Your task to perform on an android device: turn on improve location accuracy Image 0: 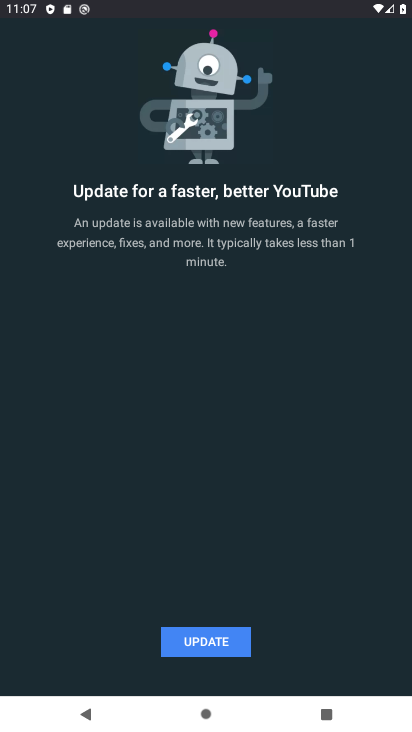
Step 0: press home button
Your task to perform on an android device: turn on improve location accuracy Image 1: 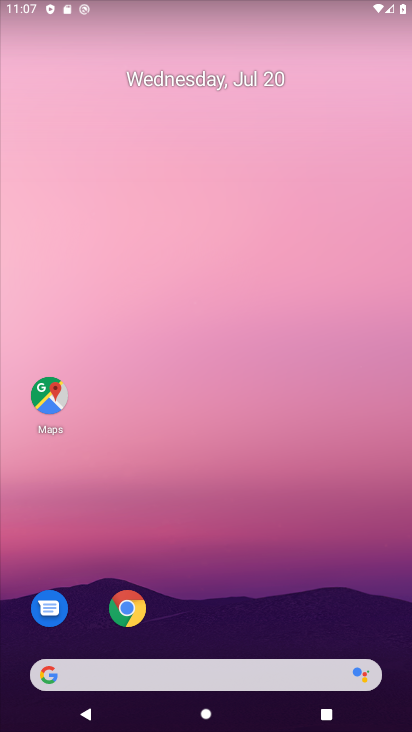
Step 1: drag from (317, 599) to (358, 123)
Your task to perform on an android device: turn on improve location accuracy Image 2: 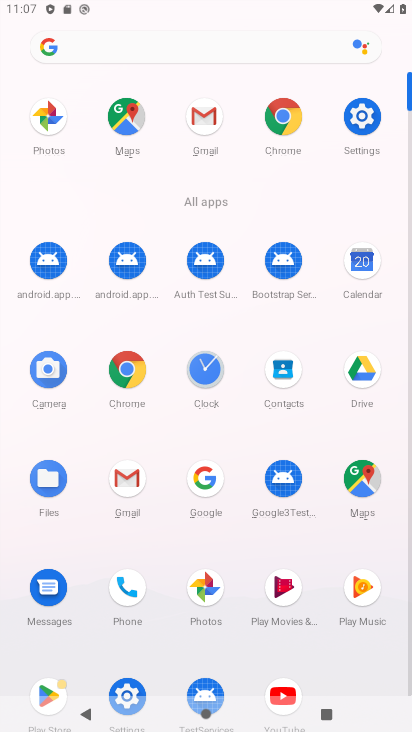
Step 2: click (366, 124)
Your task to perform on an android device: turn on improve location accuracy Image 3: 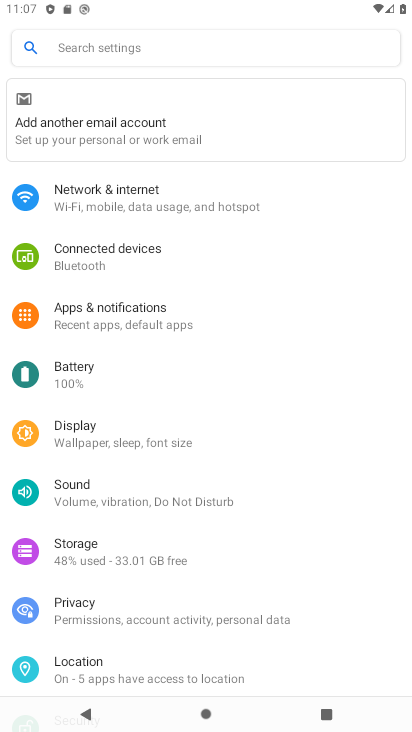
Step 3: drag from (340, 475) to (352, 360)
Your task to perform on an android device: turn on improve location accuracy Image 4: 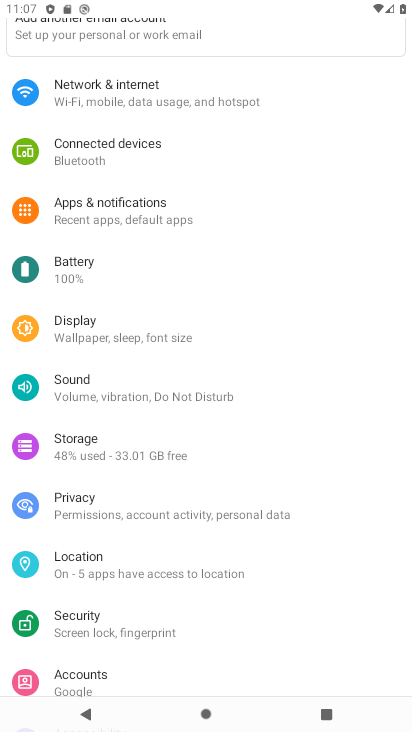
Step 4: drag from (339, 478) to (331, 378)
Your task to perform on an android device: turn on improve location accuracy Image 5: 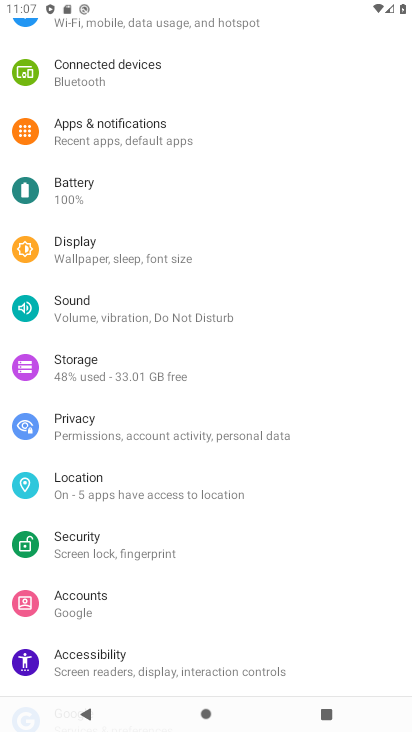
Step 5: drag from (347, 480) to (342, 383)
Your task to perform on an android device: turn on improve location accuracy Image 6: 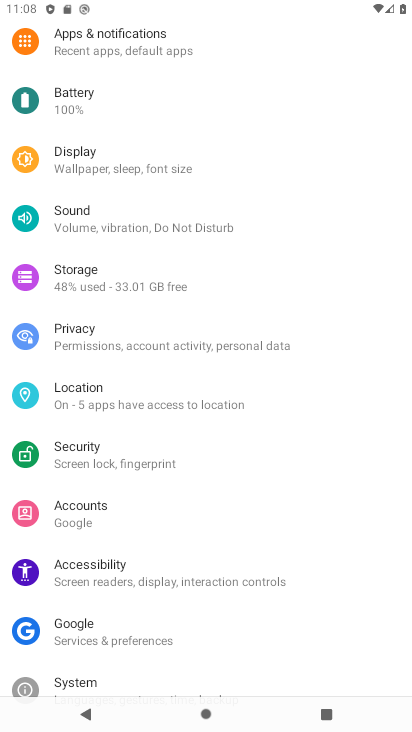
Step 6: drag from (340, 507) to (341, 387)
Your task to perform on an android device: turn on improve location accuracy Image 7: 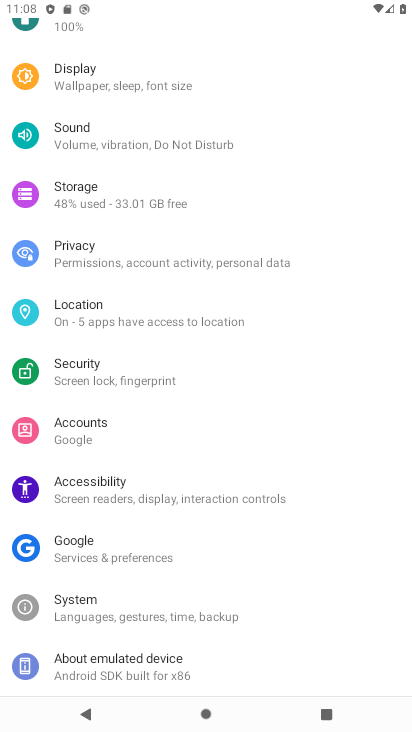
Step 7: drag from (348, 530) to (352, 411)
Your task to perform on an android device: turn on improve location accuracy Image 8: 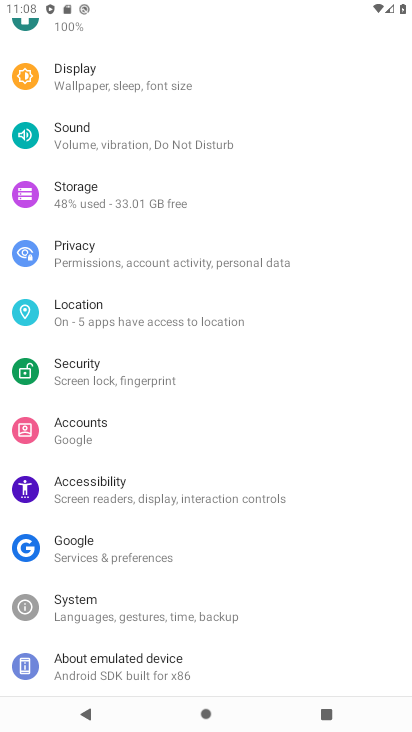
Step 8: drag from (349, 311) to (345, 391)
Your task to perform on an android device: turn on improve location accuracy Image 9: 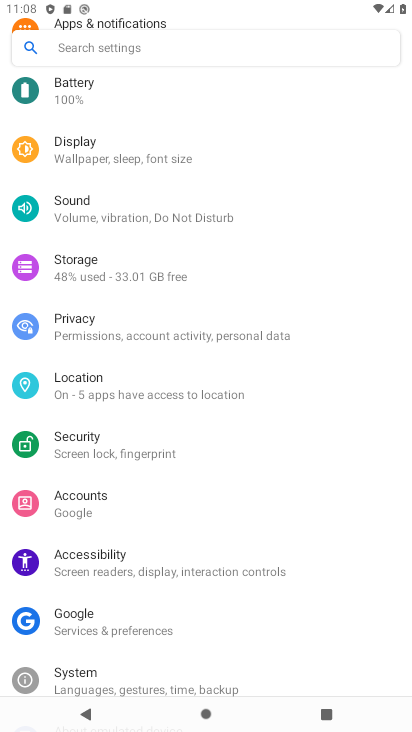
Step 9: drag from (345, 258) to (352, 424)
Your task to perform on an android device: turn on improve location accuracy Image 10: 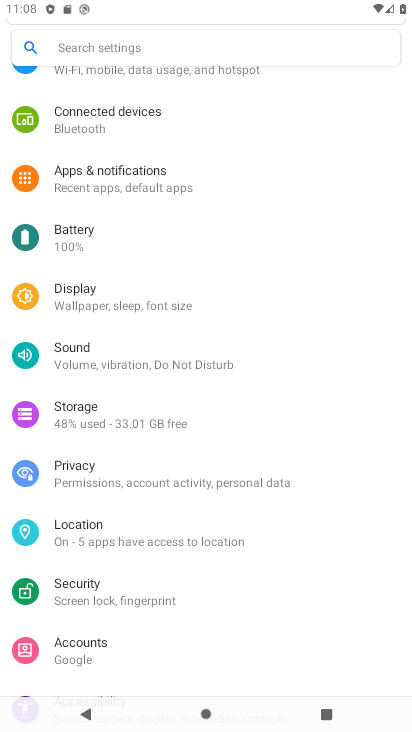
Step 10: click (295, 533)
Your task to perform on an android device: turn on improve location accuracy Image 11: 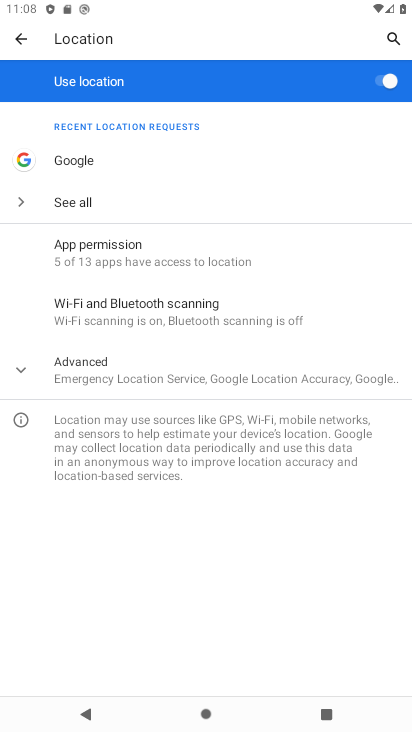
Step 11: click (281, 371)
Your task to perform on an android device: turn on improve location accuracy Image 12: 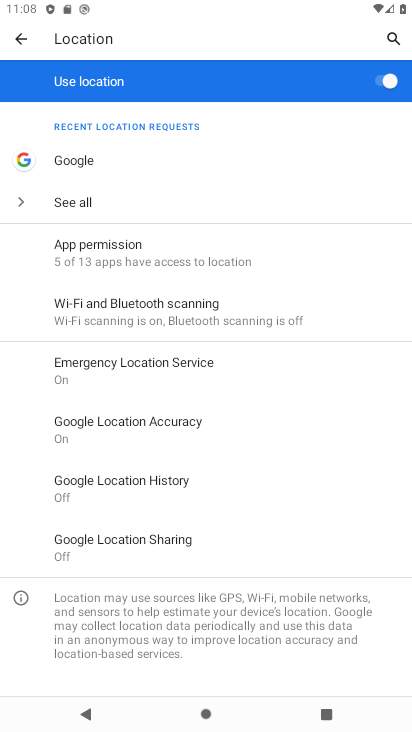
Step 12: drag from (306, 491) to (308, 375)
Your task to perform on an android device: turn on improve location accuracy Image 13: 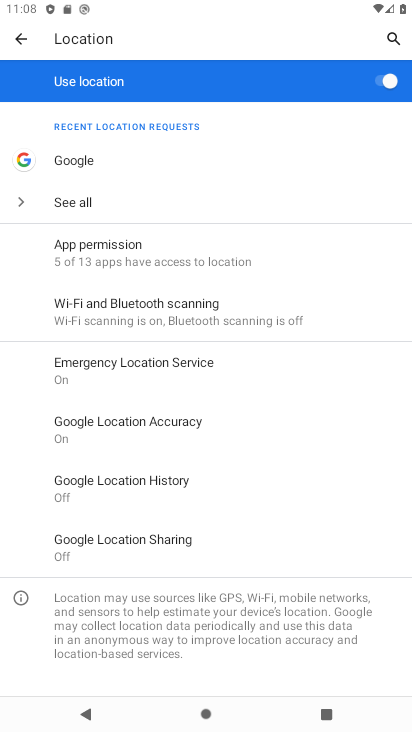
Step 13: click (178, 433)
Your task to perform on an android device: turn on improve location accuracy Image 14: 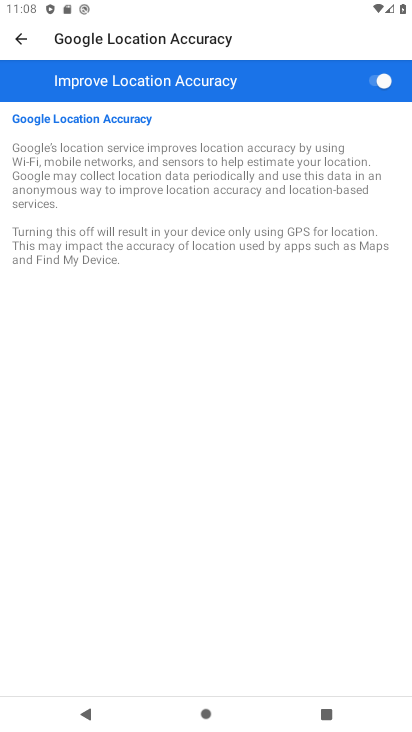
Step 14: task complete